Your task to perform on an android device: toggle notifications settings in the gmail app Image 0: 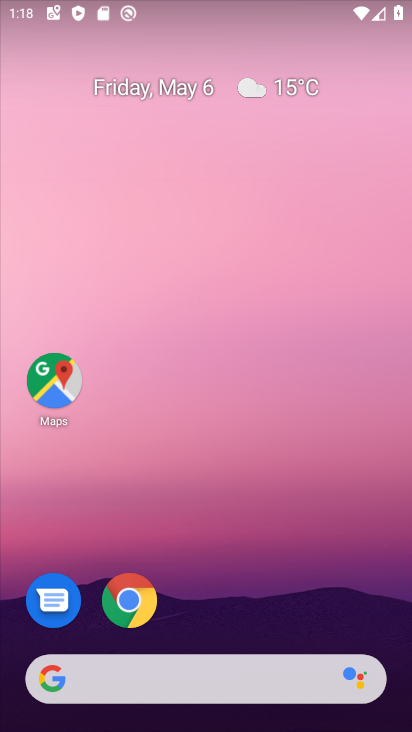
Step 0: drag from (353, 602) to (381, 92)
Your task to perform on an android device: toggle notifications settings in the gmail app Image 1: 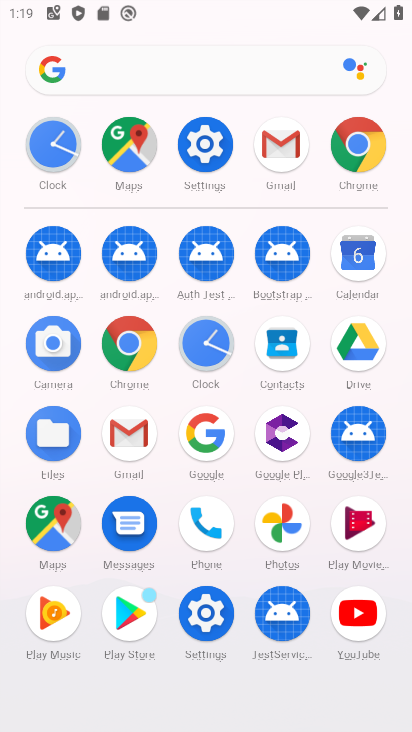
Step 1: click (139, 423)
Your task to perform on an android device: toggle notifications settings in the gmail app Image 2: 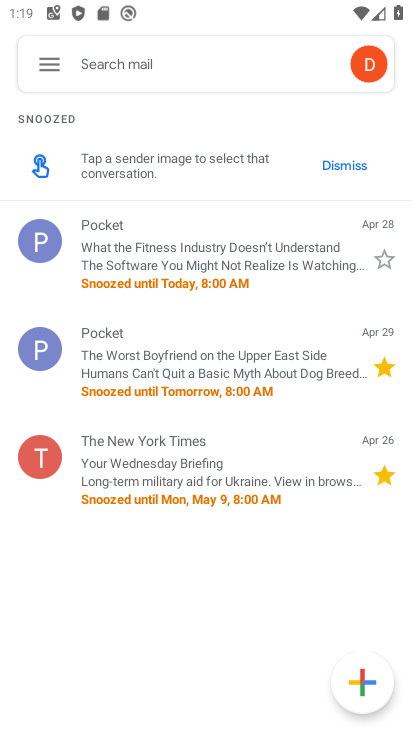
Step 2: click (49, 70)
Your task to perform on an android device: toggle notifications settings in the gmail app Image 3: 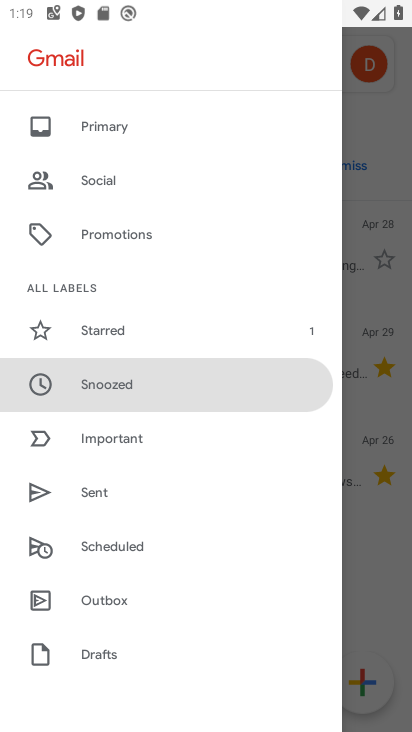
Step 3: drag from (104, 656) to (180, 172)
Your task to perform on an android device: toggle notifications settings in the gmail app Image 4: 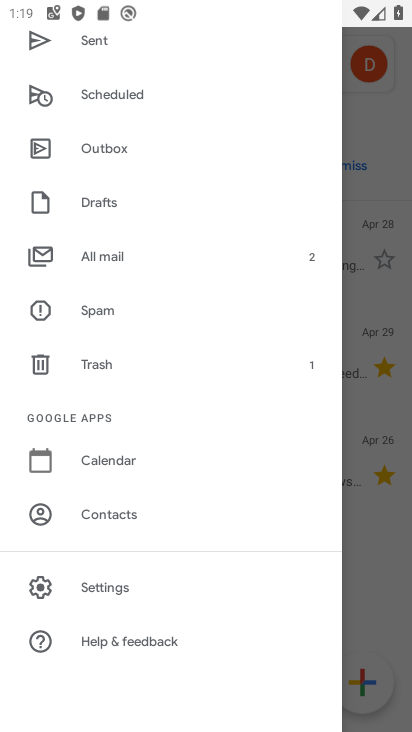
Step 4: click (128, 586)
Your task to perform on an android device: toggle notifications settings in the gmail app Image 5: 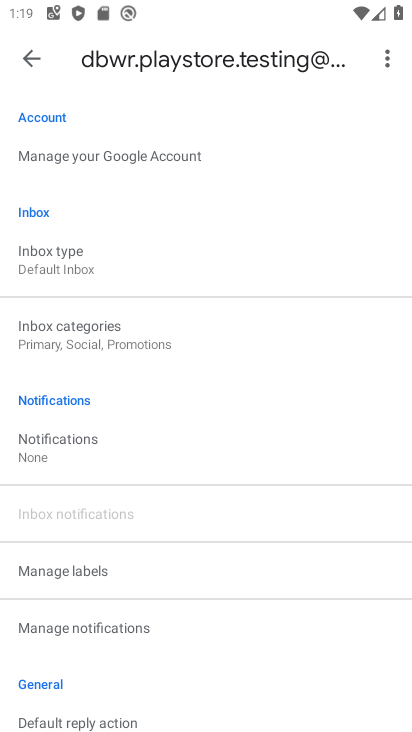
Step 5: click (105, 446)
Your task to perform on an android device: toggle notifications settings in the gmail app Image 6: 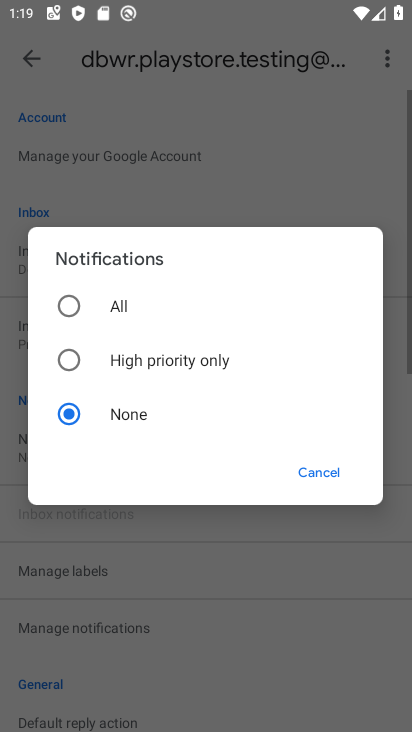
Step 6: click (95, 300)
Your task to perform on an android device: toggle notifications settings in the gmail app Image 7: 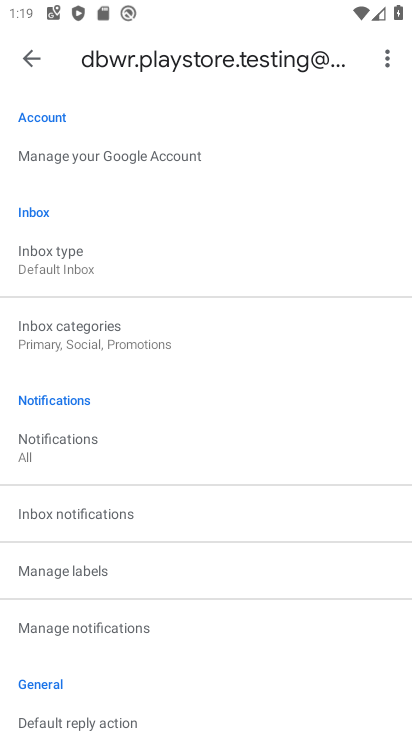
Step 7: task complete